Your task to perform on an android device: Search for "razer huntsman" on costco, select the first entry, add it to the cart, then select checkout. Image 0: 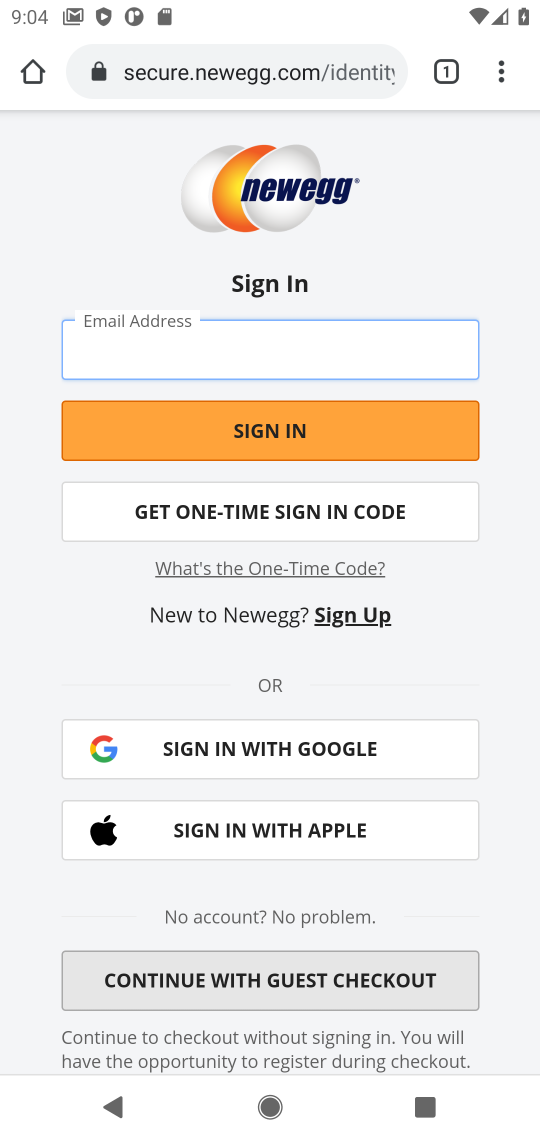
Step 0: click (178, 77)
Your task to perform on an android device: Search for "razer huntsman" on costco, select the first entry, add it to the cart, then select checkout. Image 1: 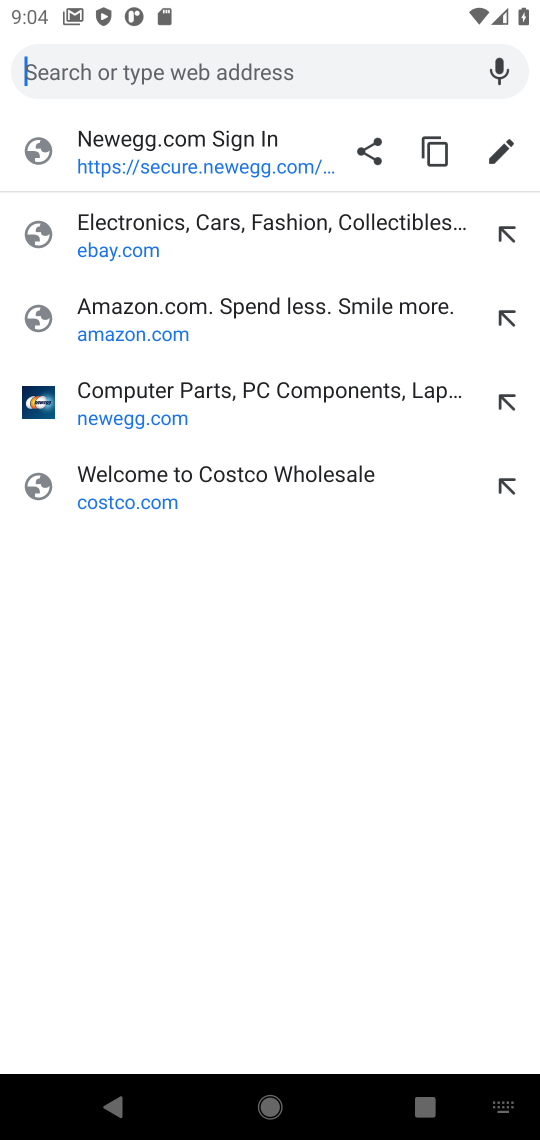
Step 1: type "costco"
Your task to perform on an android device: Search for "razer huntsman" on costco, select the first entry, add it to the cart, then select checkout. Image 2: 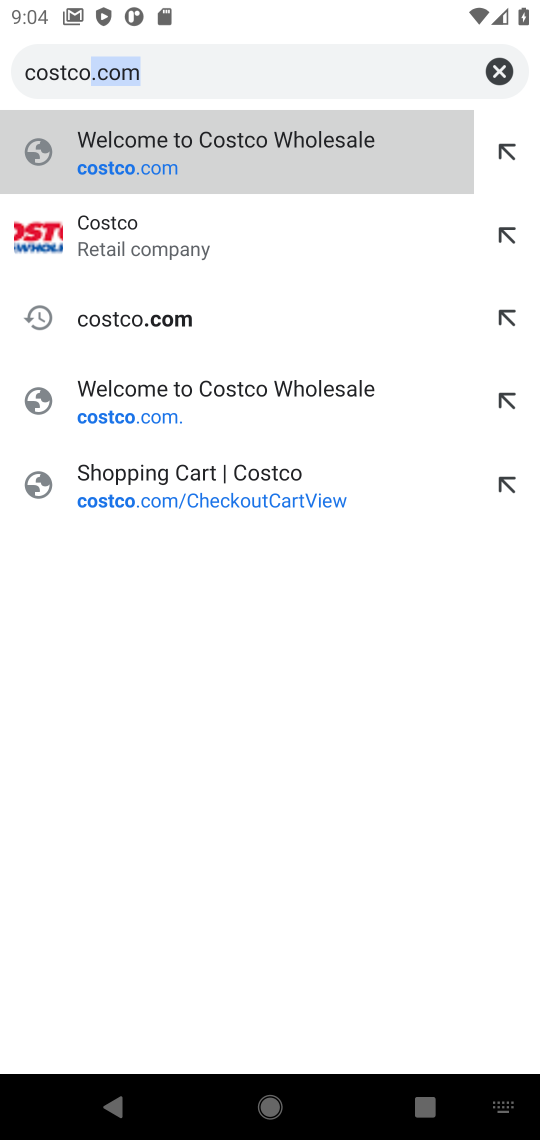
Step 2: click (184, 165)
Your task to perform on an android device: Search for "razer huntsman" on costco, select the first entry, add it to the cart, then select checkout. Image 3: 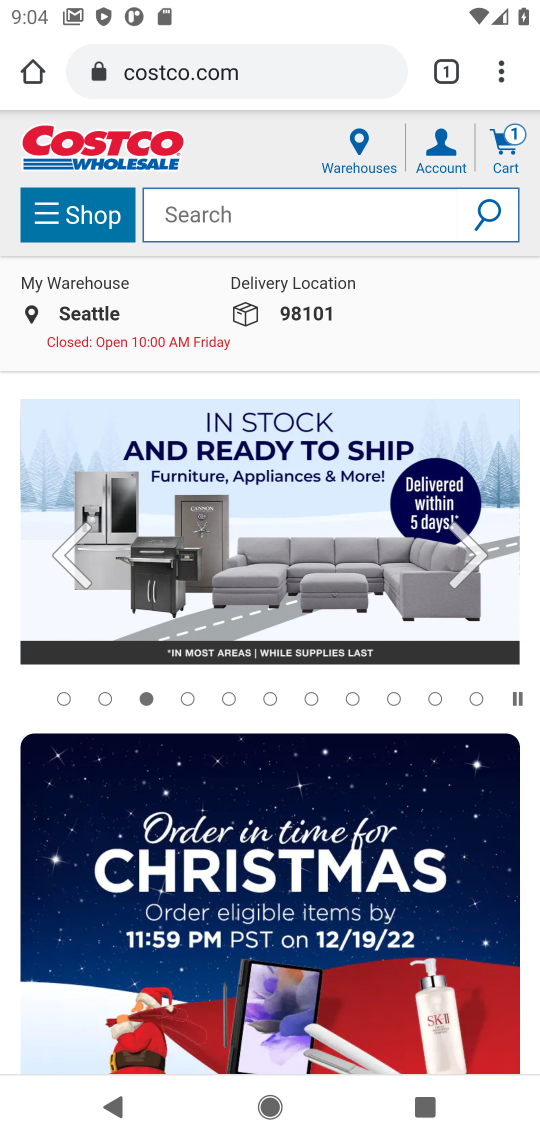
Step 3: click (318, 226)
Your task to perform on an android device: Search for "razer huntsman" on costco, select the first entry, add it to the cart, then select checkout. Image 4: 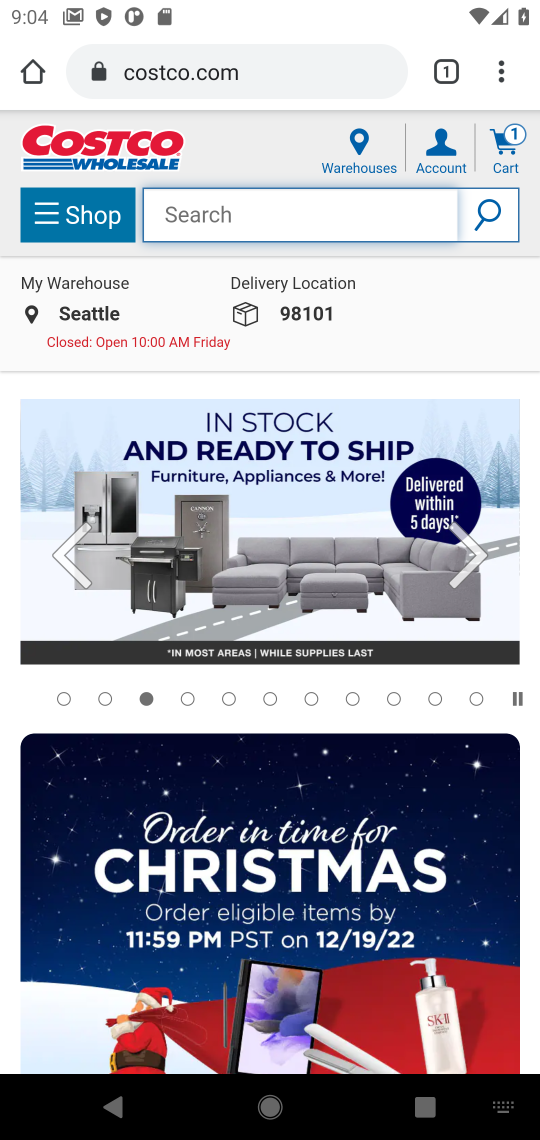
Step 4: type "razer huntsman"
Your task to perform on an android device: Search for "razer huntsman" on costco, select the first entry, add it to the cart, then select checkout. Image 5: 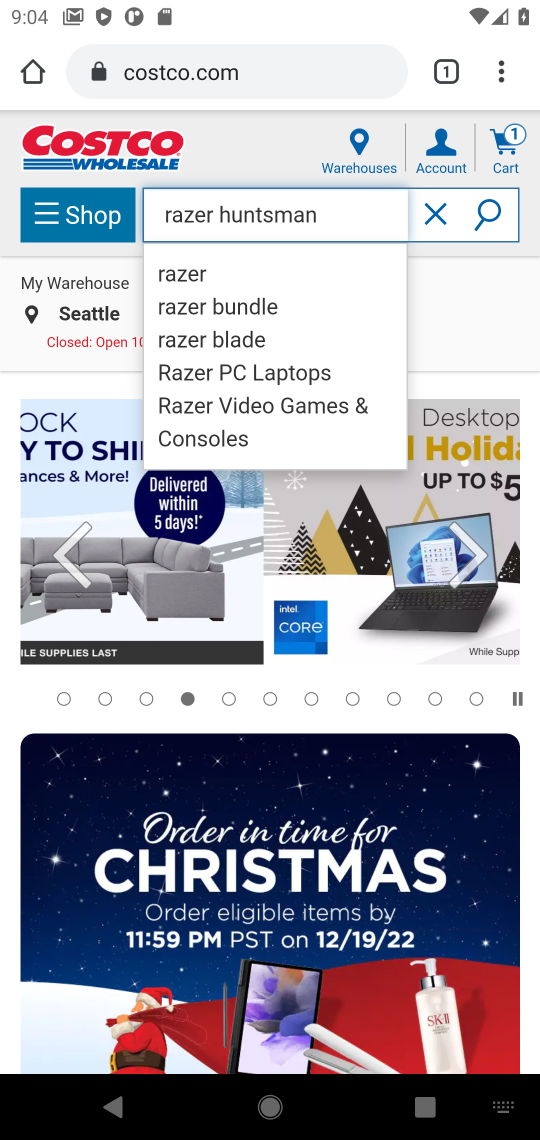
Step 5: press enter
Your task to perform on an android device: Search for "razer huntsman" on costco, select the first entry, add it to the cart, then select checkout. Image 6: 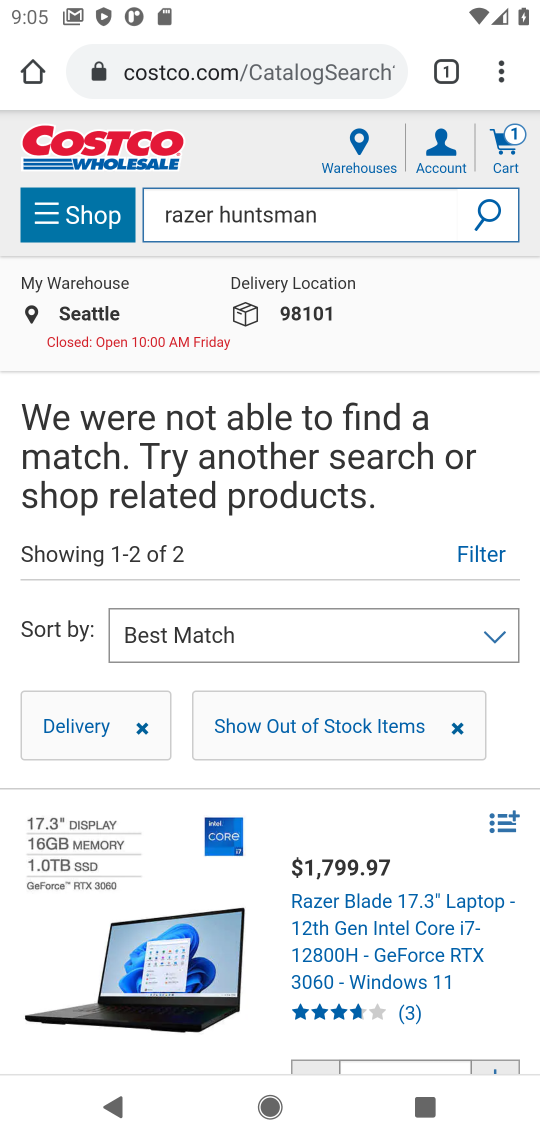
Step 6: task complete